Your task to perform on an android device: add a label to a message in the gmail app Image 0: 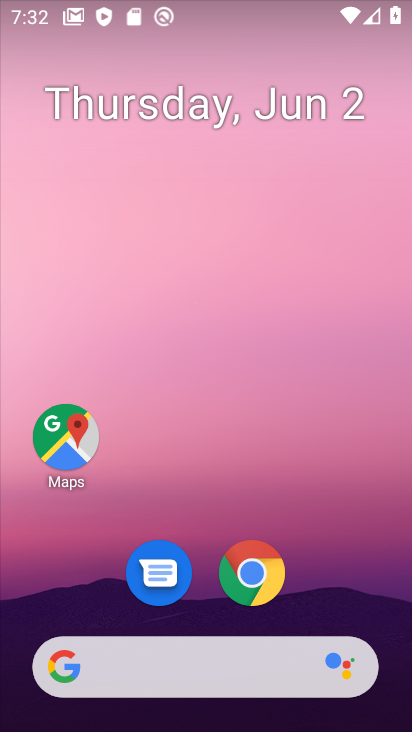
Step 0: press home button
Your task to perform on an android device: add a label to a message in the gmail app Image 1: 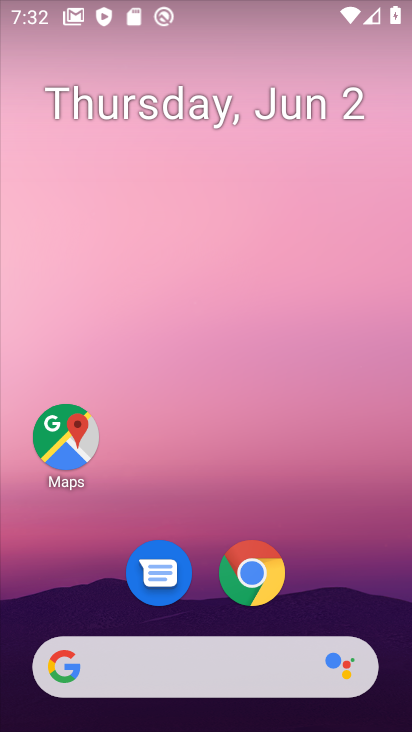
Step 1: drag from (231, 660) to (360, 227)
Your task to perform on an android device: add a label to a message in the gmail app Image 2: 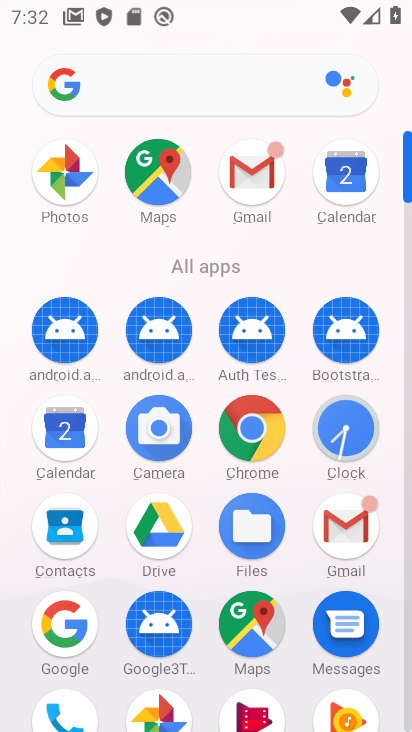
Step 2: click (254, 187)
Your task to perform on an android device: add a label to a message in the gmail app Image 3: 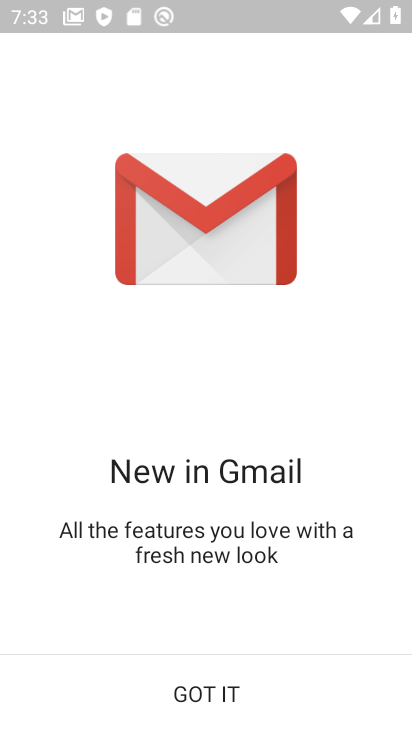
Step 3: click (226, 686)
Your task to perform on an android device: add a label to a message in the gmail app Image 4: 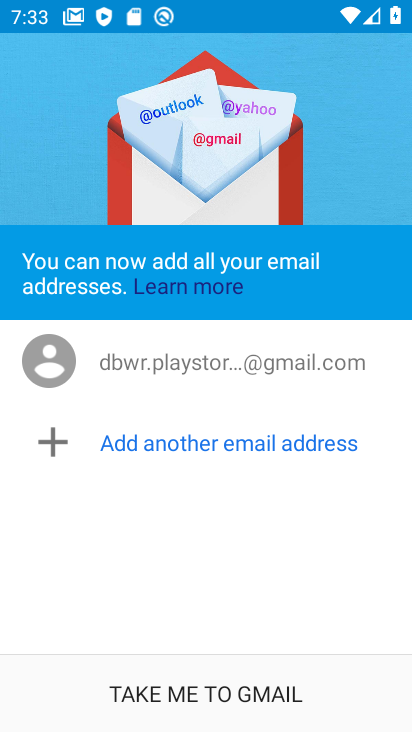
Step 4: click (226, 686)
Your task to perform on an android device: add a label to a message in the gmail app Image 5: 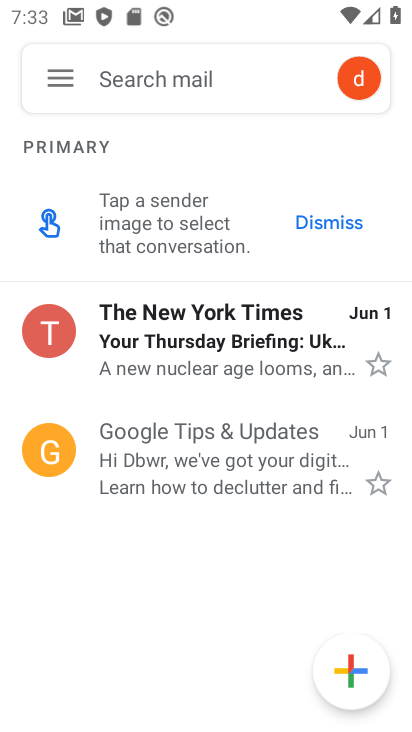
Step 5: click (214, 346)
Your task to perform on an android device: add a label to a message in the gmail app Image 6: 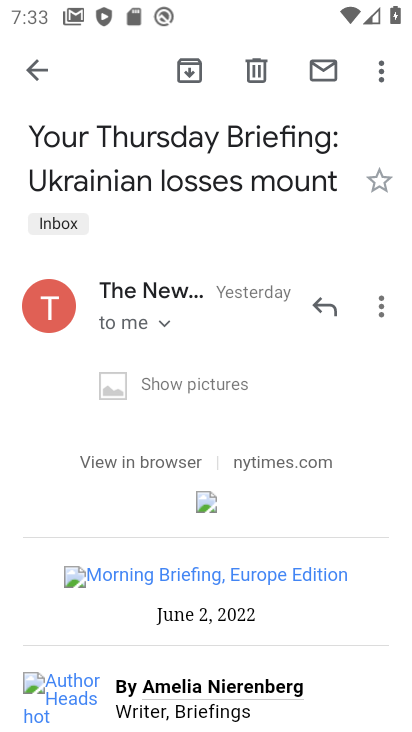
Step 6: click (69, 222)
Your task to perform on an android device: add a label to a message in the gmail app Image 7: 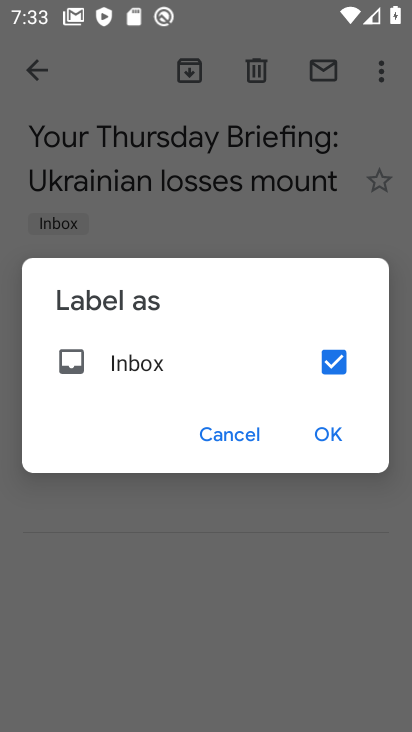
Step 7: task complete